Your task to perform on an android device: see tabs open on other devices in the chrome app Image 0: 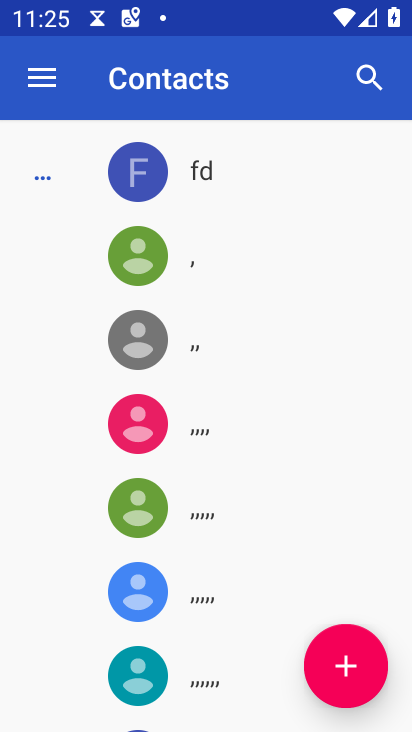
Step 0: press home button
Your task to perform on an android device: see tabs open on other devices in the chrome app Image 1: 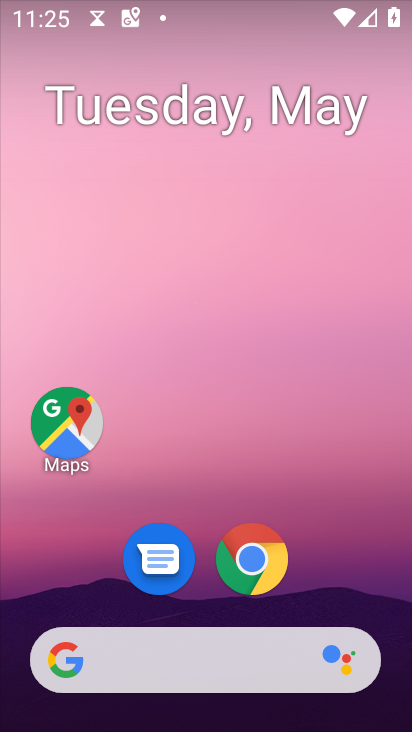
Step 1: drag from (381, 496) to (393, 52)
Your task to perform on an android device: see tabs open on other devices in the chrome app Image 2: 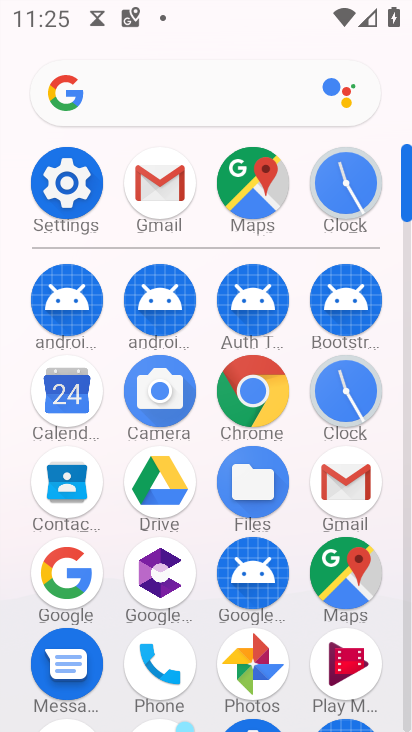
Step 2: click (251, 406)
Your task to perform on an android device: see tabs open on other devices in the chrome app Image 3: 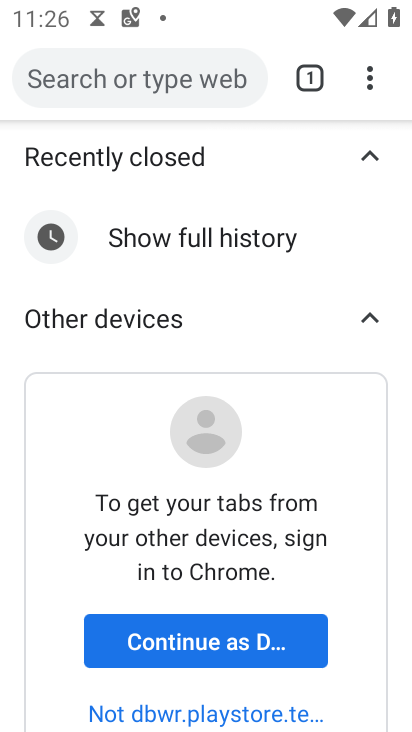
Step 3: drag from (378, 73) to (100, 320)
Your task to perform on an android device: see tabs open on other devices in the chrome app Image 4: 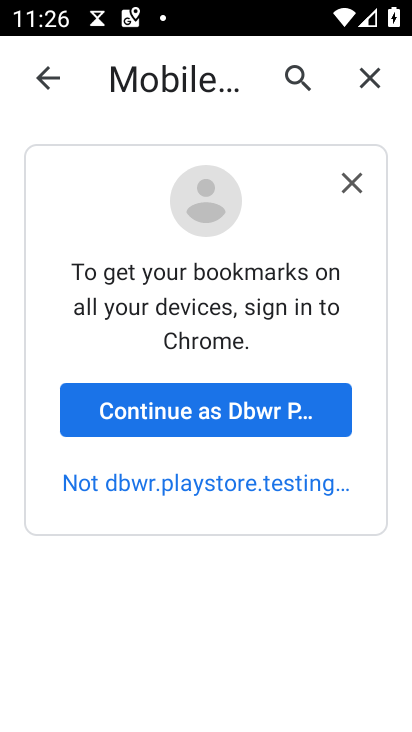
Step 4: click (210, 413)
Your task to perform on an android device: see tabs open on other devices in the chrome app Image 5: 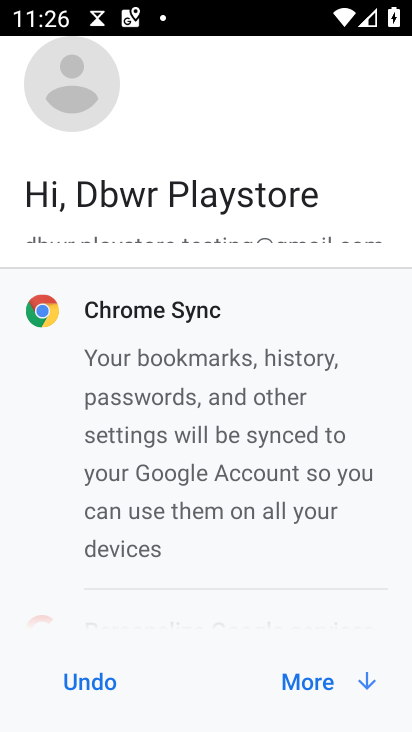
Step 5: click (297, 684)
Your task to perform on an android device: see tabs open on other devices in the chrome app Image 6: 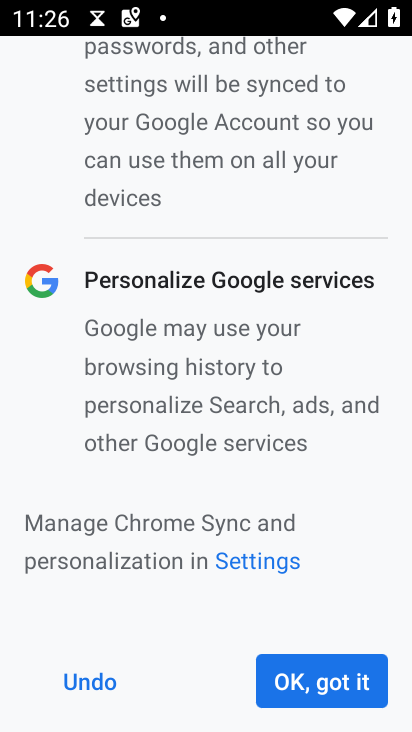
Step 6: click (344, 672)
Your task to perform on an android device: see tabs open on other devices in the chrome app Image 7: 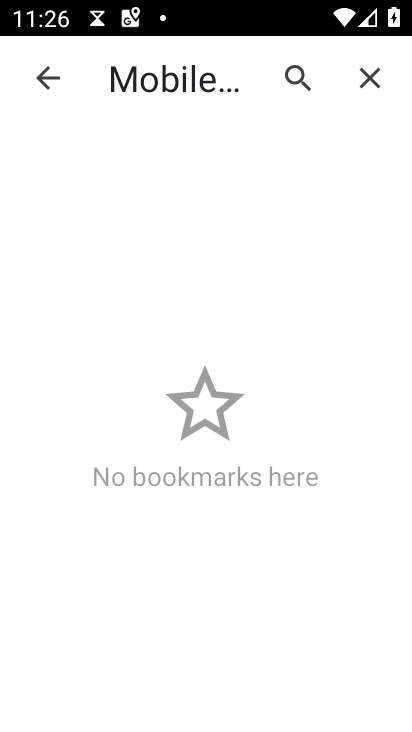
Step 7: task complete